Your task to perform on an android device: change keyboard looks Image 0: 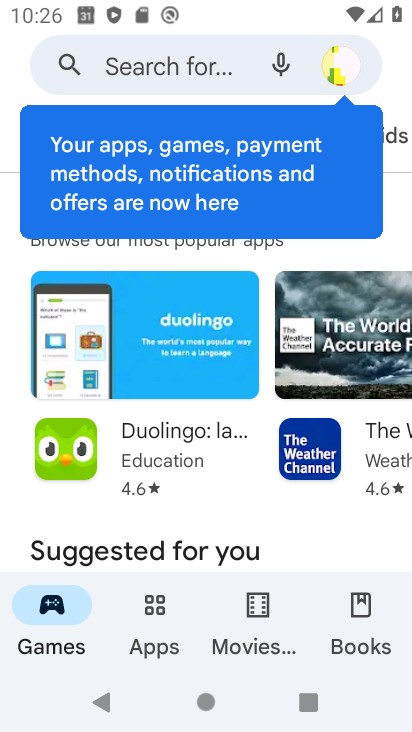
Step 0: press home button
Your task to perform on an android device: change keyboard looks Image 1: 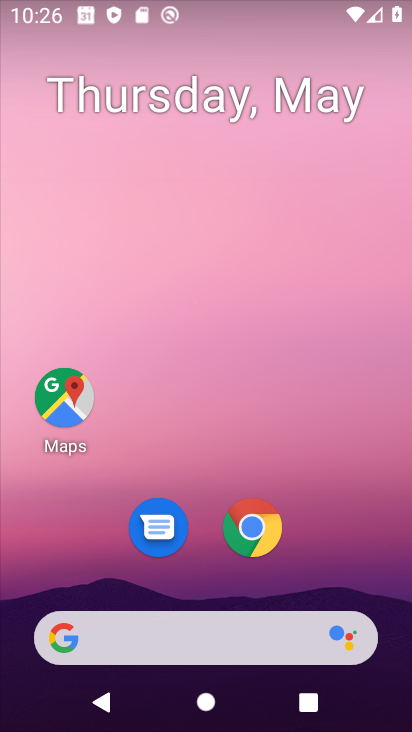
Step 1: drag from (220, 725) to (223, 95)
Your task to perform on an android device: change keyboard looks Image 2: 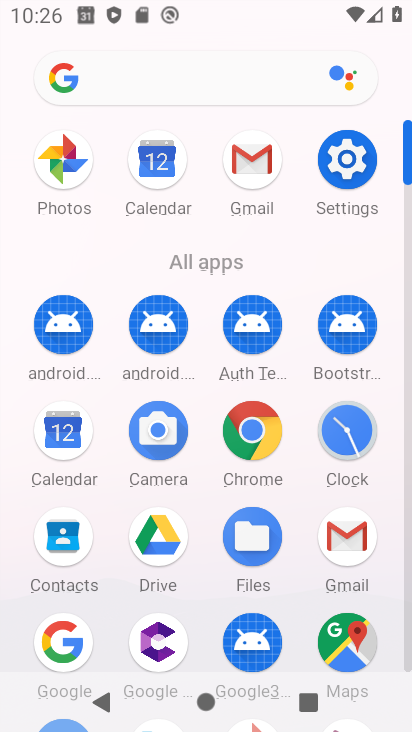
Step 2: click (344, 158)
Your task to perform on an android device: change keyboard looks Image 3: 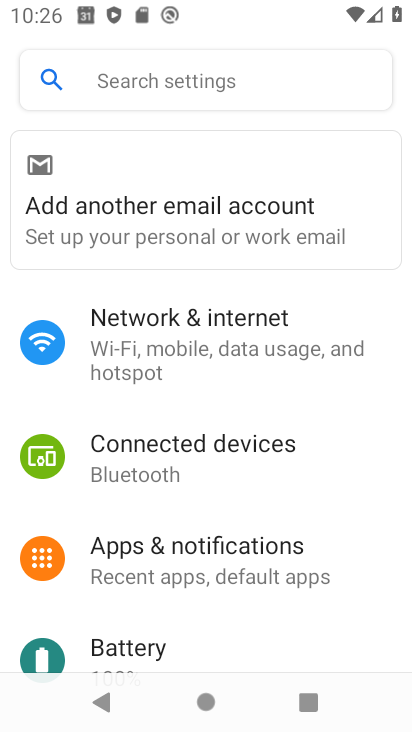
Step 3: drag from (188, 623) to (207, 275)
Your task to perform on an android device: change keyboard looks Image 4: 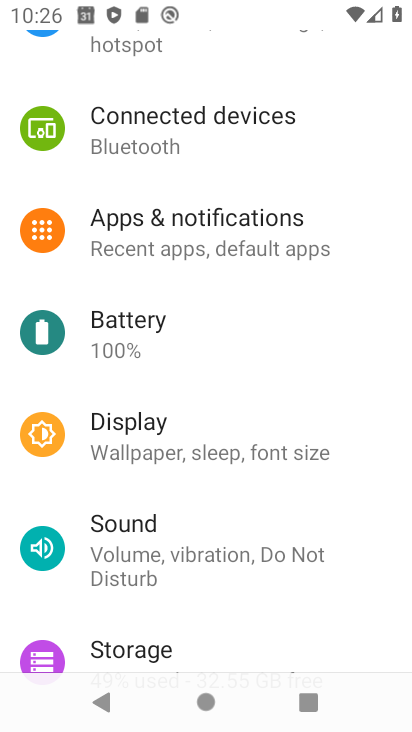
Step 4: drag from (196, 638) to (196, 250)
Your task to perform on an android device: change keyboard looks Image 5: 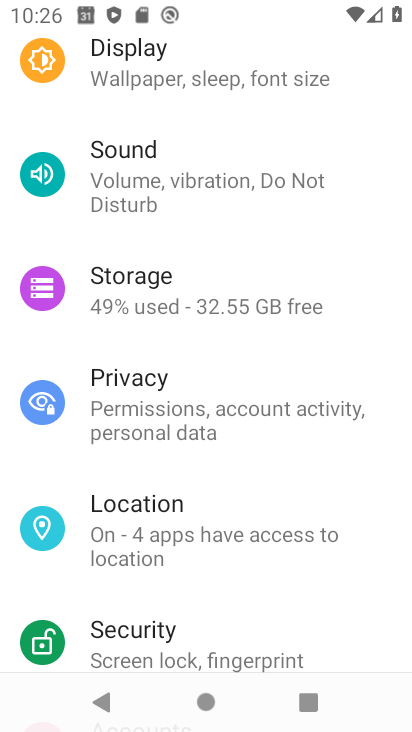
Step 5: drag from (199, 618) to (215, 174)
Your task to perform on an android device: change keyboard looks Image 6: 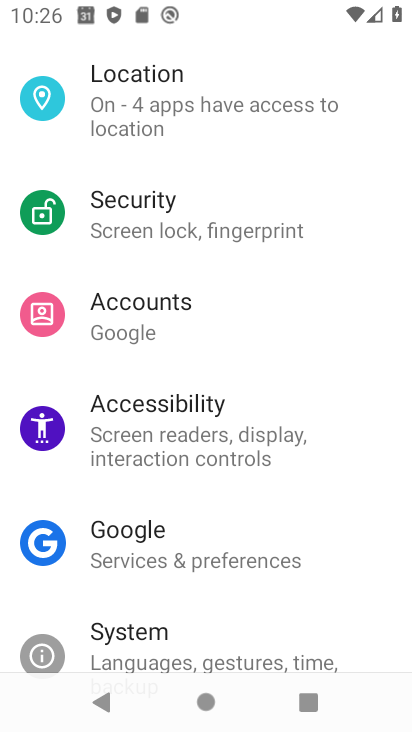
Step 6: drag from (229, 602) to (252, 205)
Your task to perform on an android device: change keyboard looks Image 7: 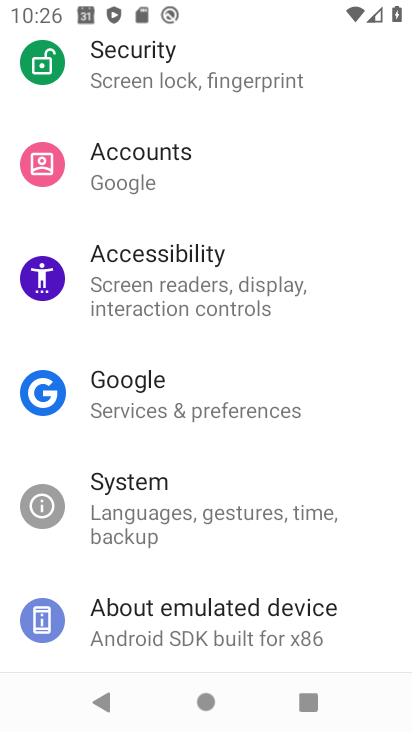
Step 7: click (133, 489)
Your task to perform on an android device: change keyboard looks Image 8: 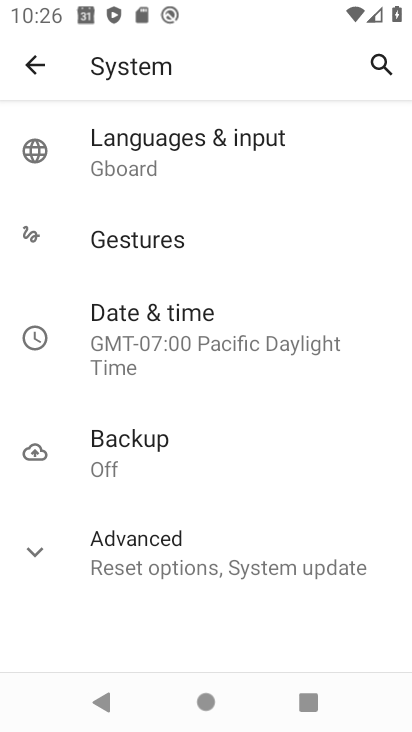
Step 8: click (140, 151)
Your task to perform on an android device: change keyboard looks Image 9: 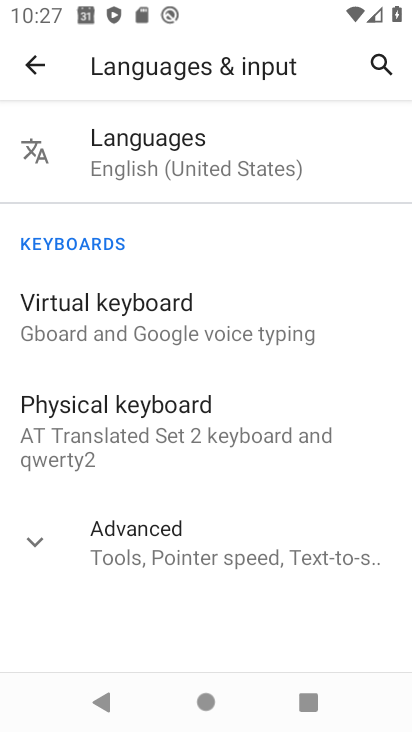
Step 9: click (135, 316)
Your task to perform on an android device: change keyboard looks Image 10: 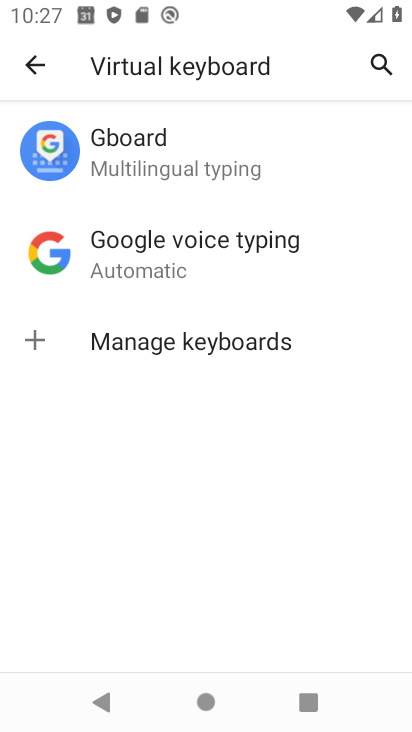
Step 10: click (133, 158)
Your task to perform on an android device: change keyboard looks Image 11: 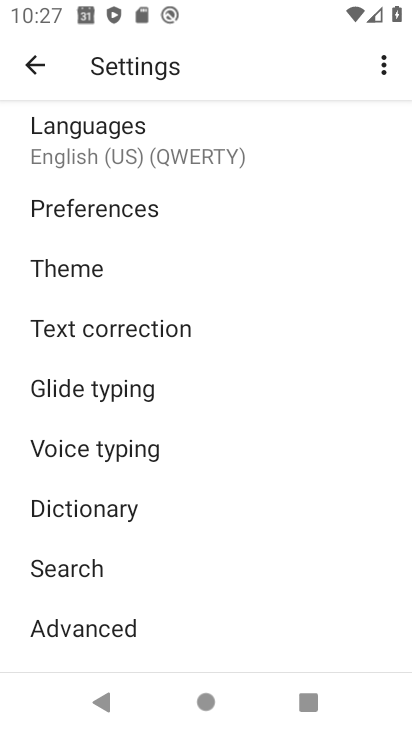
Step 11: click (63, 272)
Your task to perform on an android device: change keyboard looks Image 12: 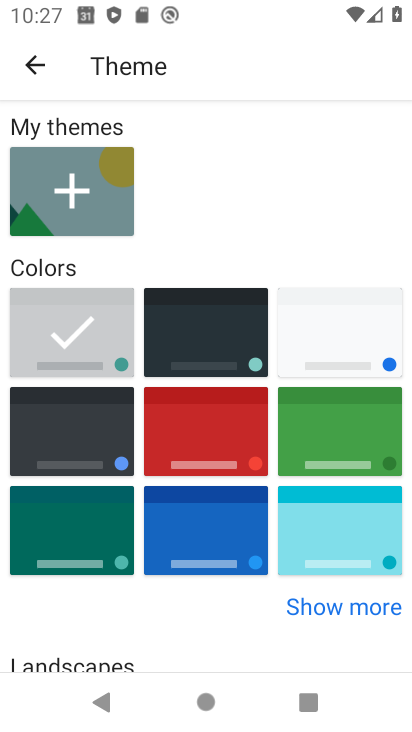
Step 12: click (221, 345)
Your task to perform on an android device: change keyboard looks Image 13: 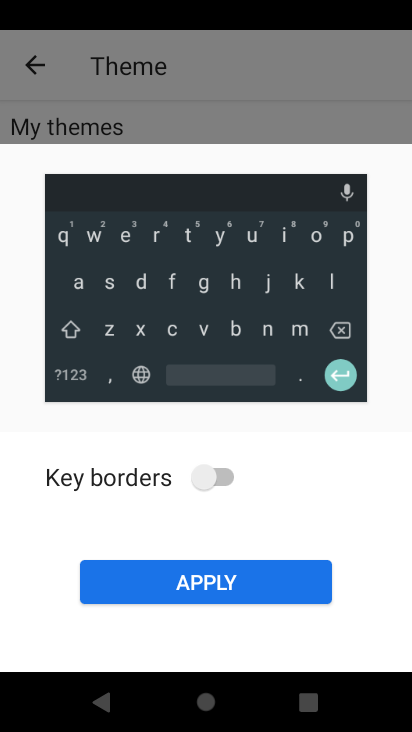
Step 13: click (223, 474)
Your task to perform on an android device: change keyboard looks Image 14: 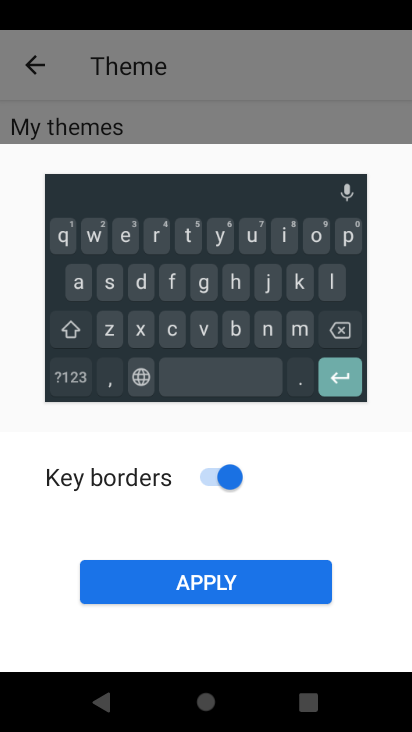
Step 14: click (255, 578)
Your task to perform on an android device: change keyboard looks Image 15: 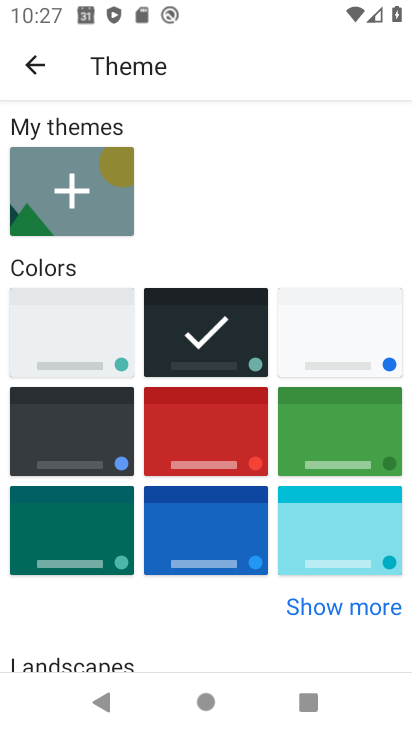
Step 15: task complete